Your task to perform on an android device: Open wifi settings Image 0: 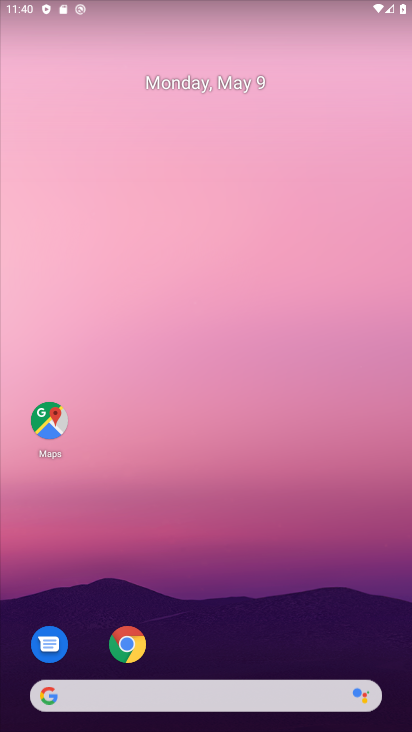
Step 0: drag from (109, 9) to (161, 668)
Your task to perform on an android device: Open wifi settings Image 1: 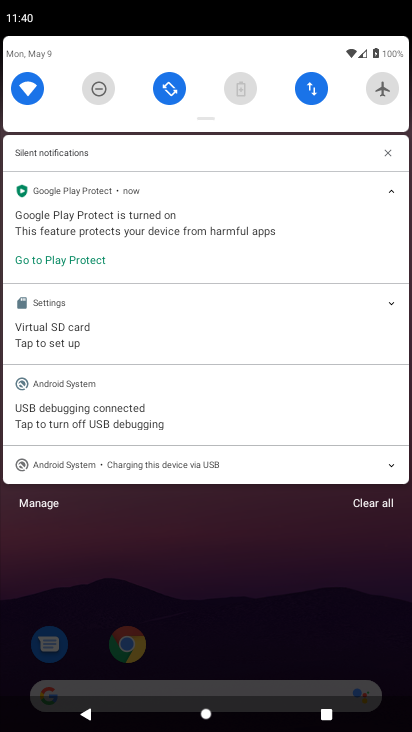
Step 1: click (35, 87)
Your task to perform on an android device: Open wifi settings Image 2: 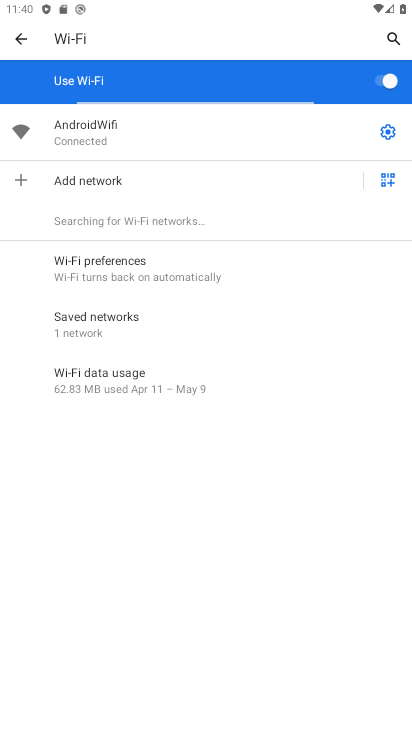
Step 2: task complete